Your task to perform on an android device: Play the last video I watched on Youtube Image 0: 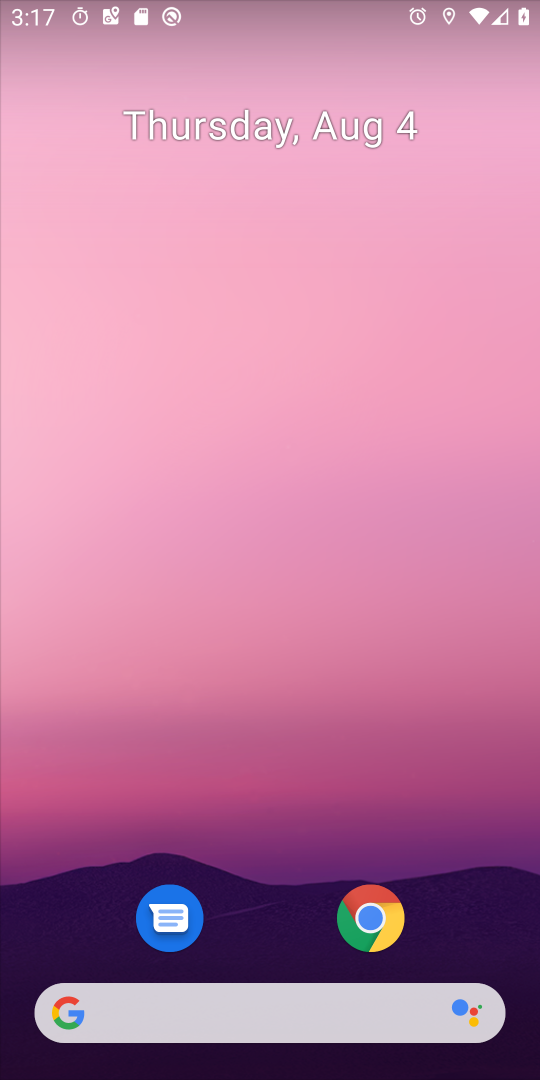
Step 0: drag from (235, 874) to (235, 345)
Your task to perform on an android device: Play the last video I watched on Youtube Image 1: 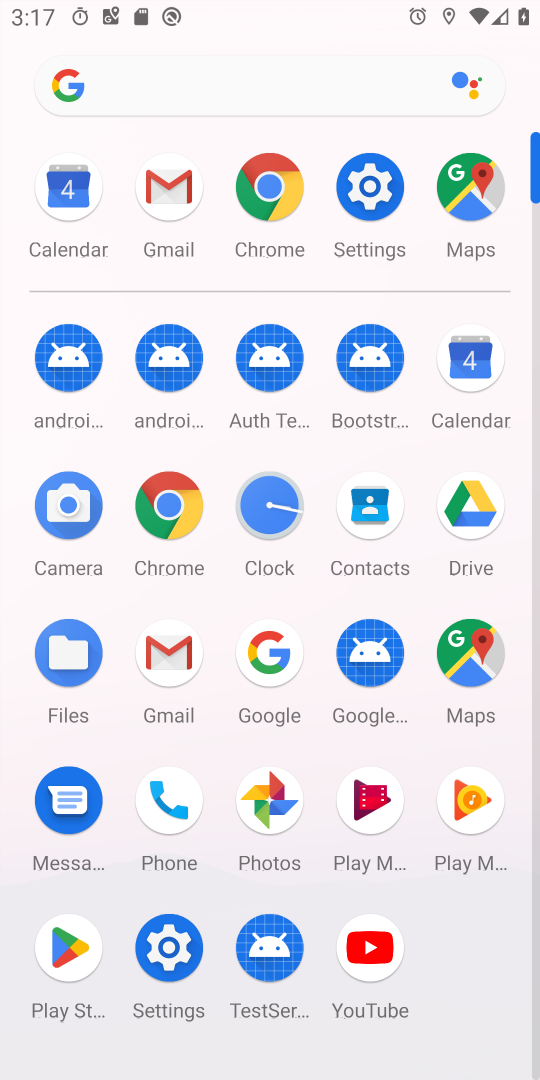
Step 1: click (372, 932)
Your task to perform on an android device: Play the last video I watched on Youtube Image 2: 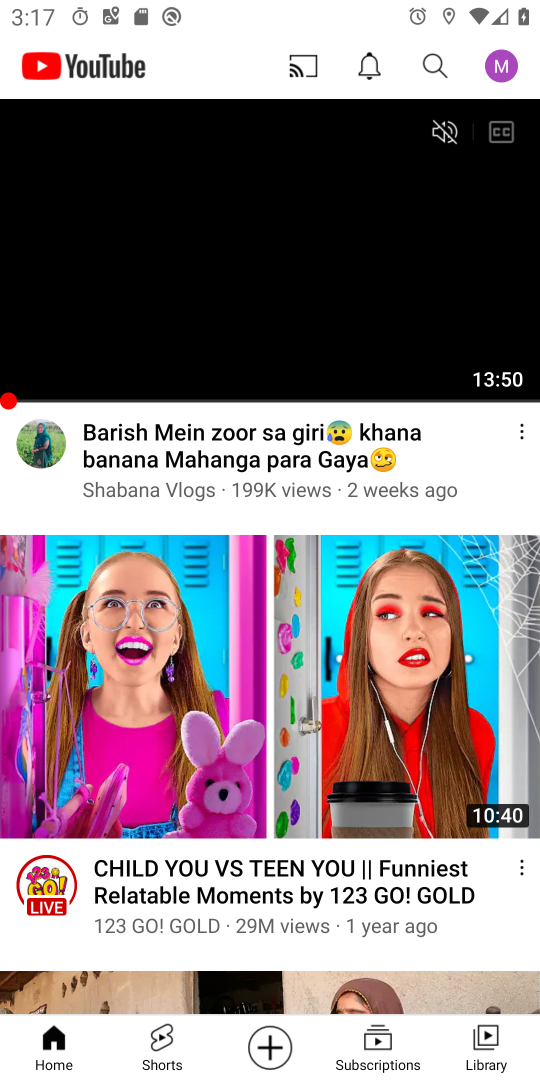
Step 2: click (470, 1040)
Your task to perform on an android device: Play the last video I watched on Youtube Image 3: 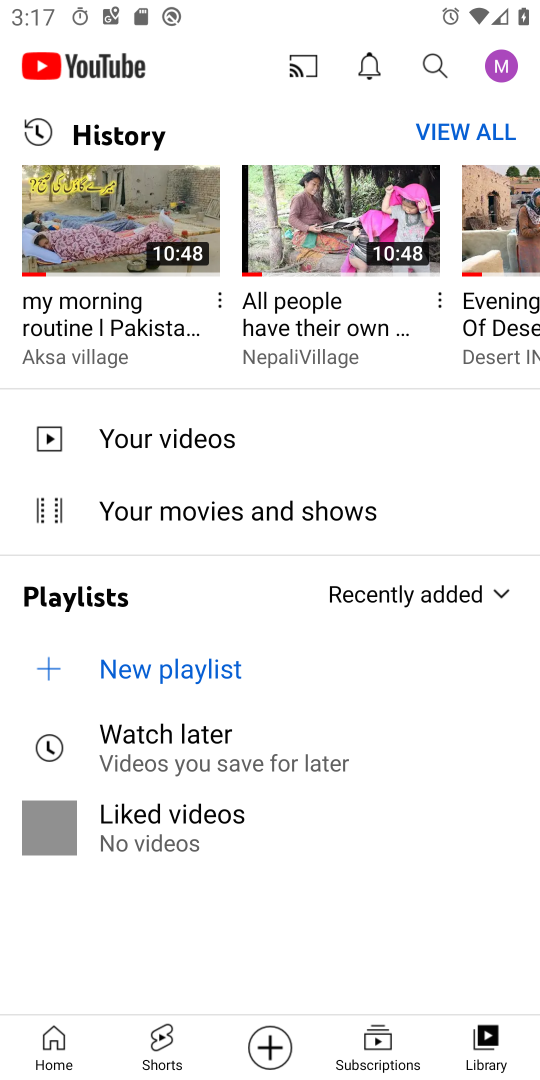
Step 3: click (91, 239)
Your task to perform on an android device: Play the last video I watched on Youtube Image 4: 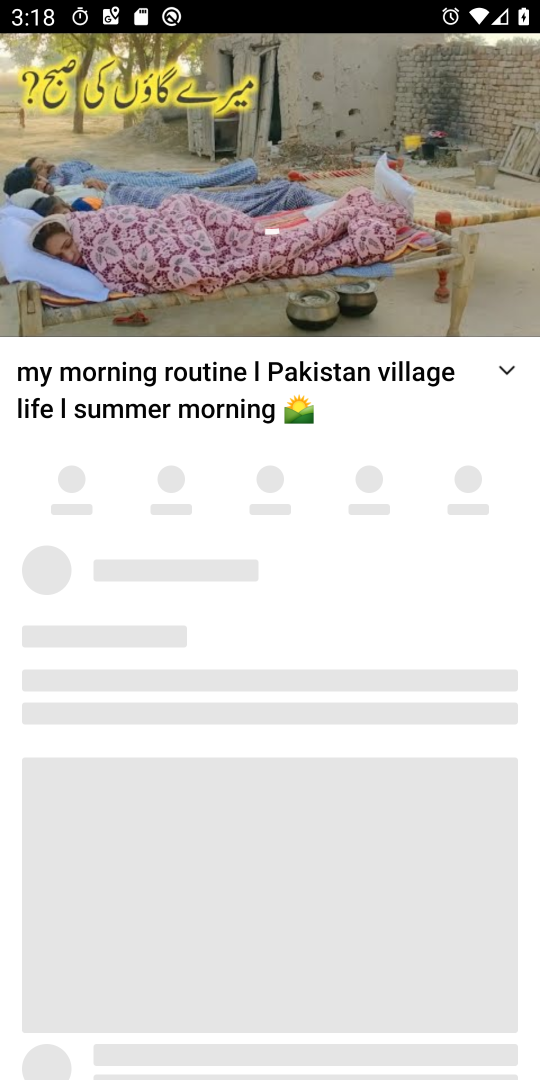
Step 4: click (272, 218)
Your task to perform on an android device: Play the last video I watched on Youtube Image 5: 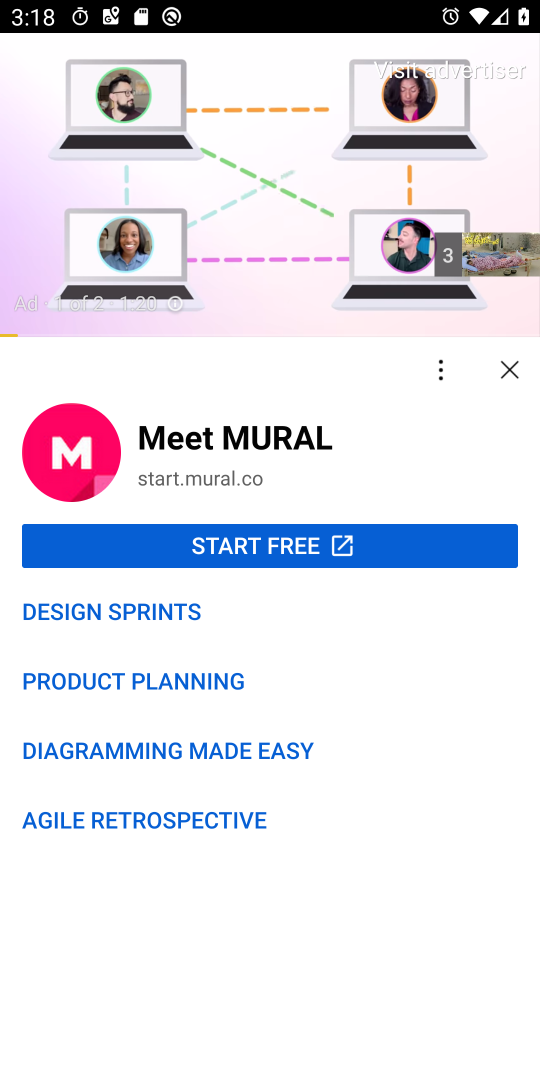
Step 5: click (254, 207)
Your task to perform on an android device: Play the last video I watched on Youtube Image 6: 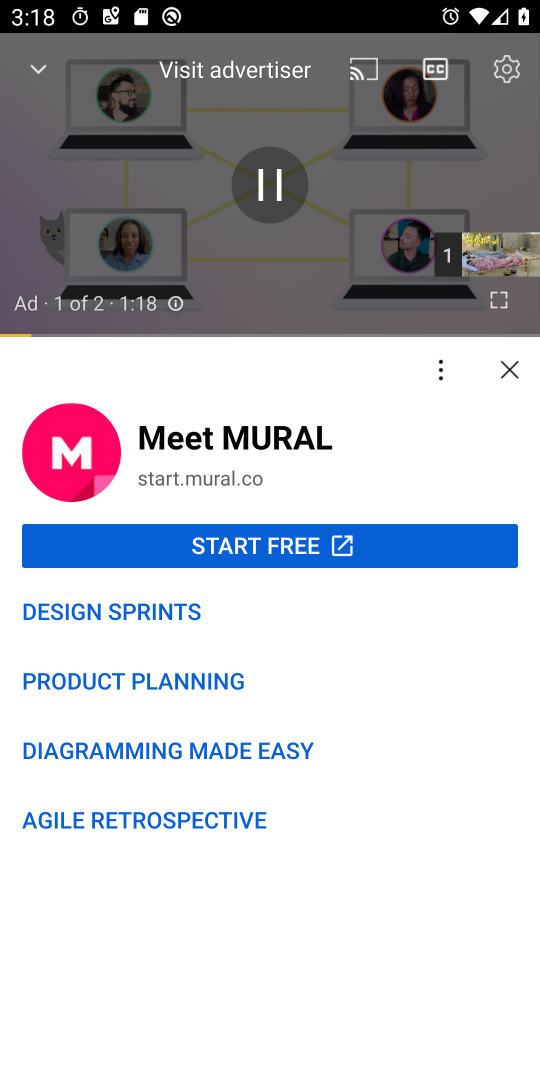
Step 6: click (275, 186)
Your task to perform on an android device: Play the last video I watched on Youtube Image 7: 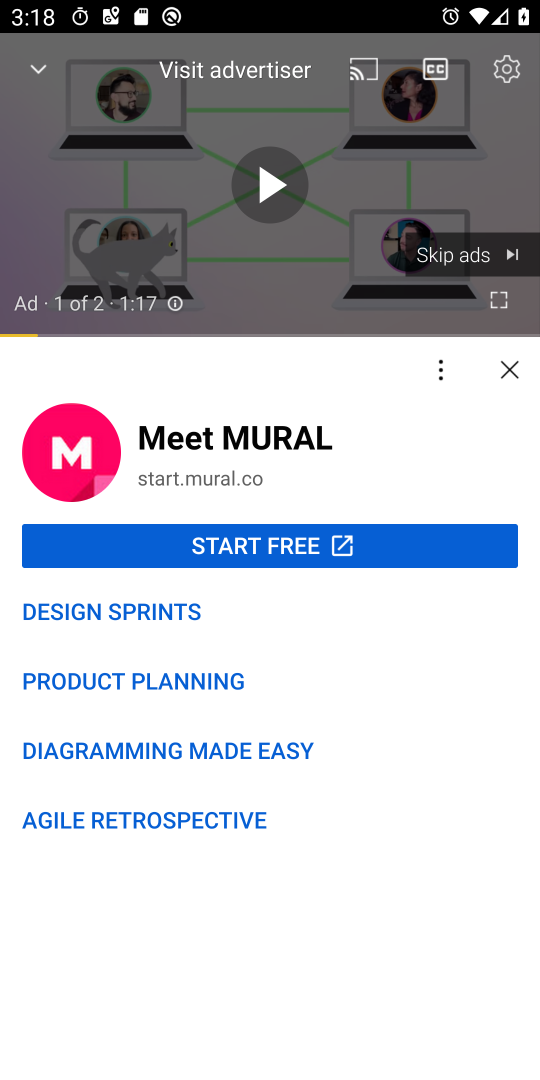
Step 7: task complete